Your task to perform on an android device: Show the shopping cart on ebay.com. Add "usb-a" to the cart on ebay.com, then select checkout. Image 0: 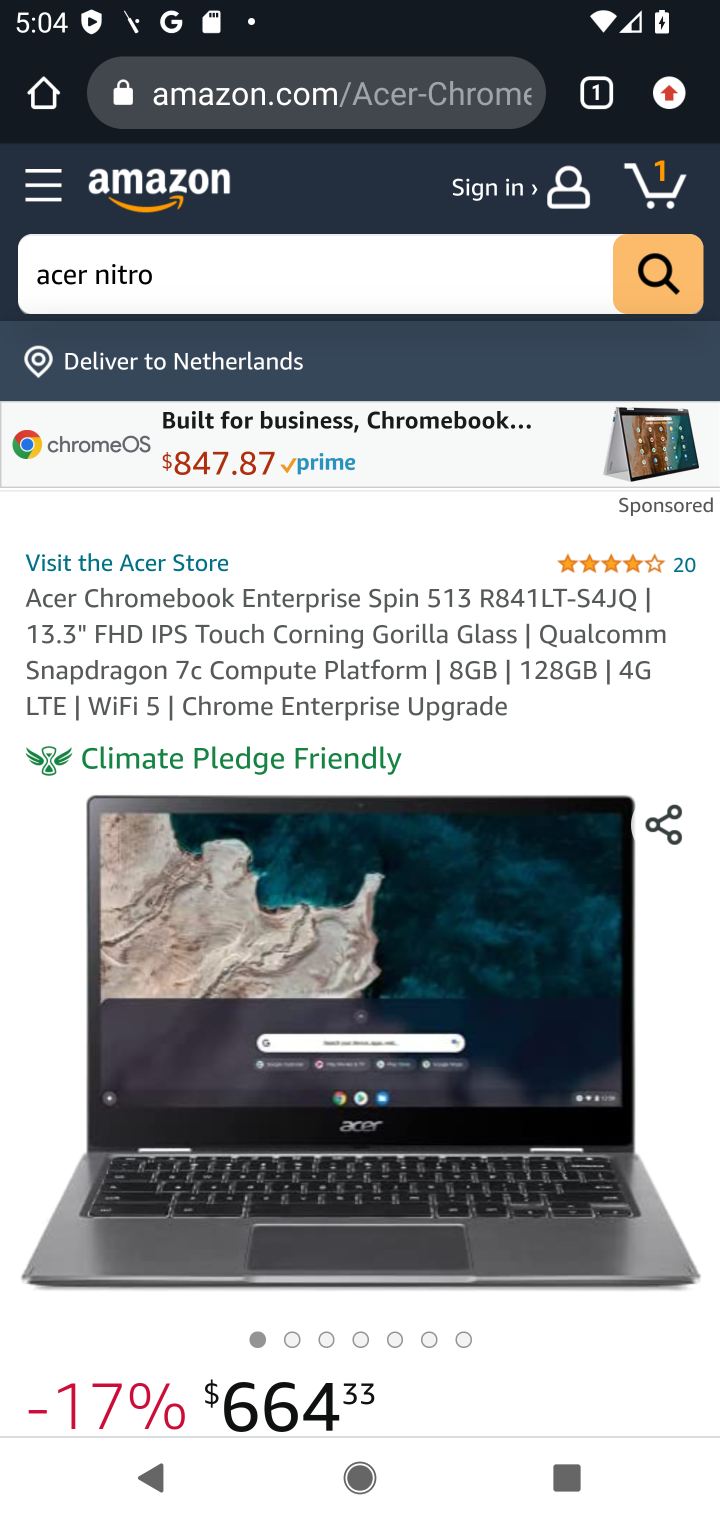
Step 0: click (267, 91)
Your task to perform on an android device: Show the shopping cart on ebay.com. Add "usb-a" to the cart on ebay.com, then select checkout. Image 1: 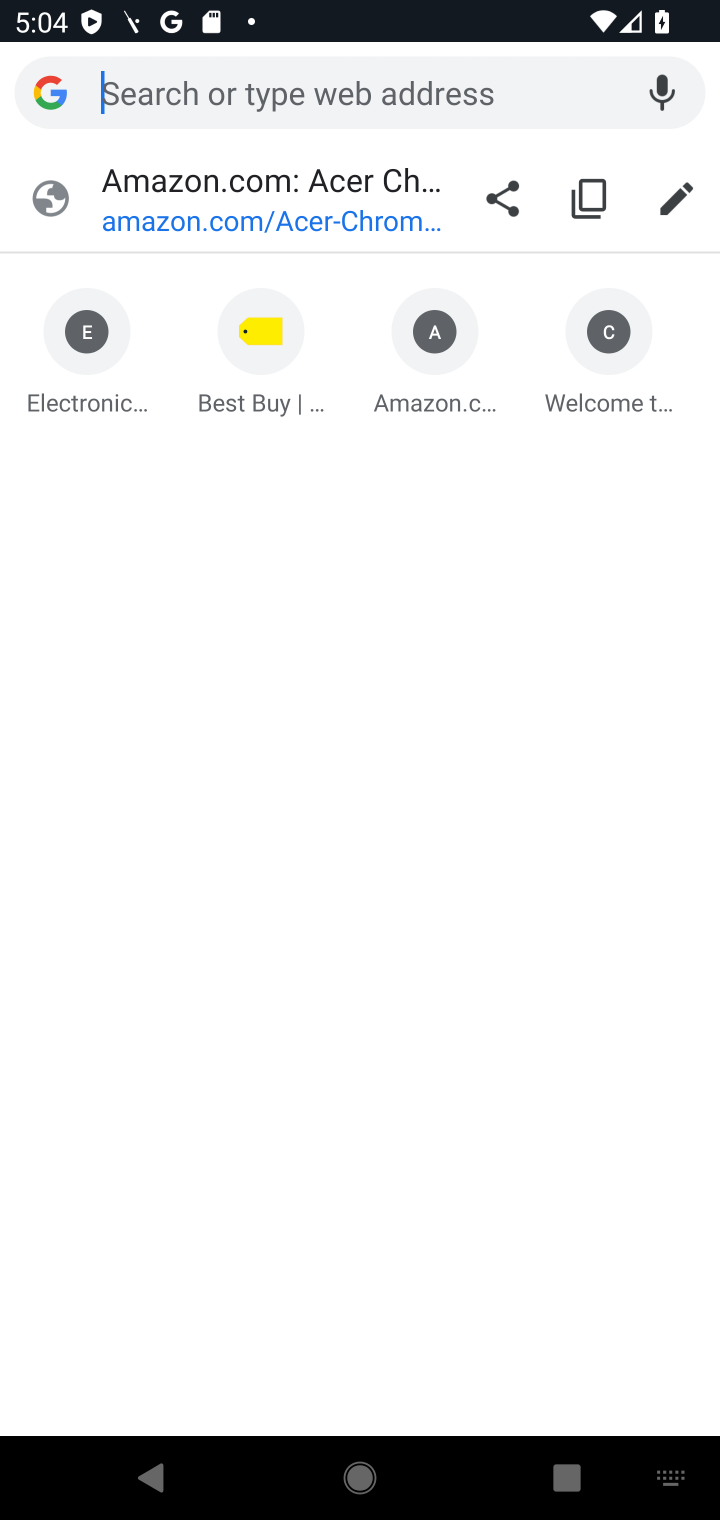
Step 1: type "ebay.com"
Your task to perform on an android device: Show the shopping cart on ebay.com. Add "usb-a" to the cart on ebay.com, then select checkout. Image 2: 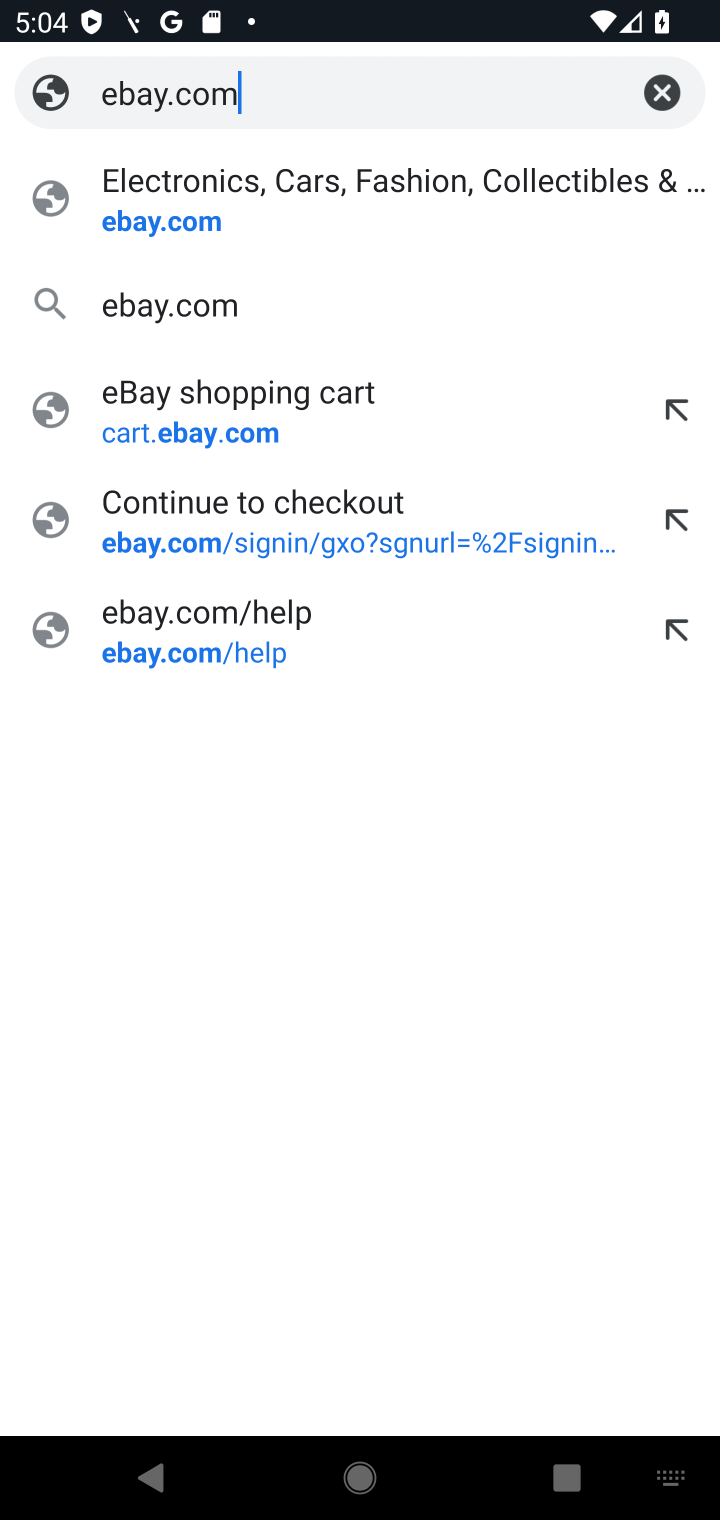
Step 2: click (157, 228)
Your task to perform on an android device: Show the shopping cart on ebay.com. Add "usb-a" to the cart on ebay.com, then select checkout. Image 3: 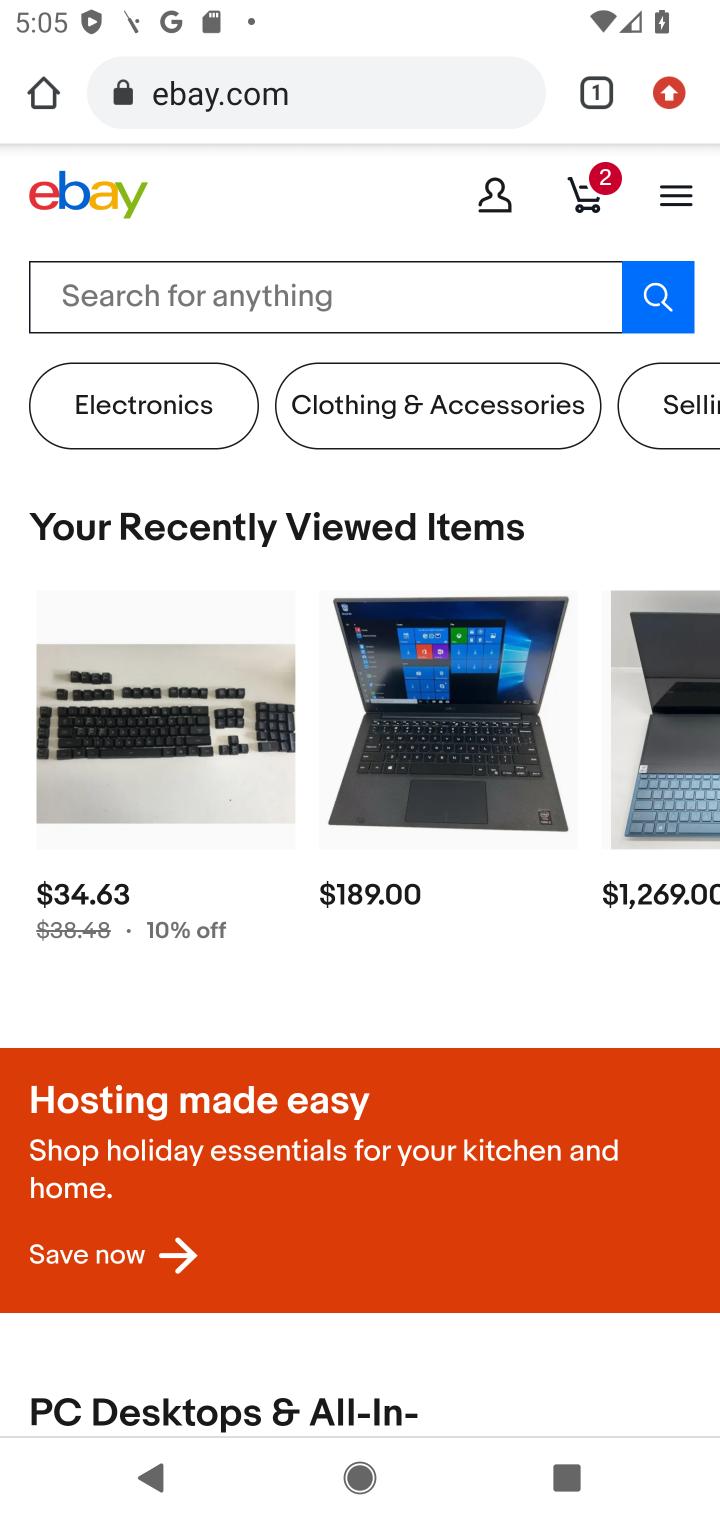
Step 3: click (588, 204)
Your task to perform on an android device: Show the shopping cart on ebay.com. Add "usb-a" to the cart on ebay.com, then select checkout. Image 4: 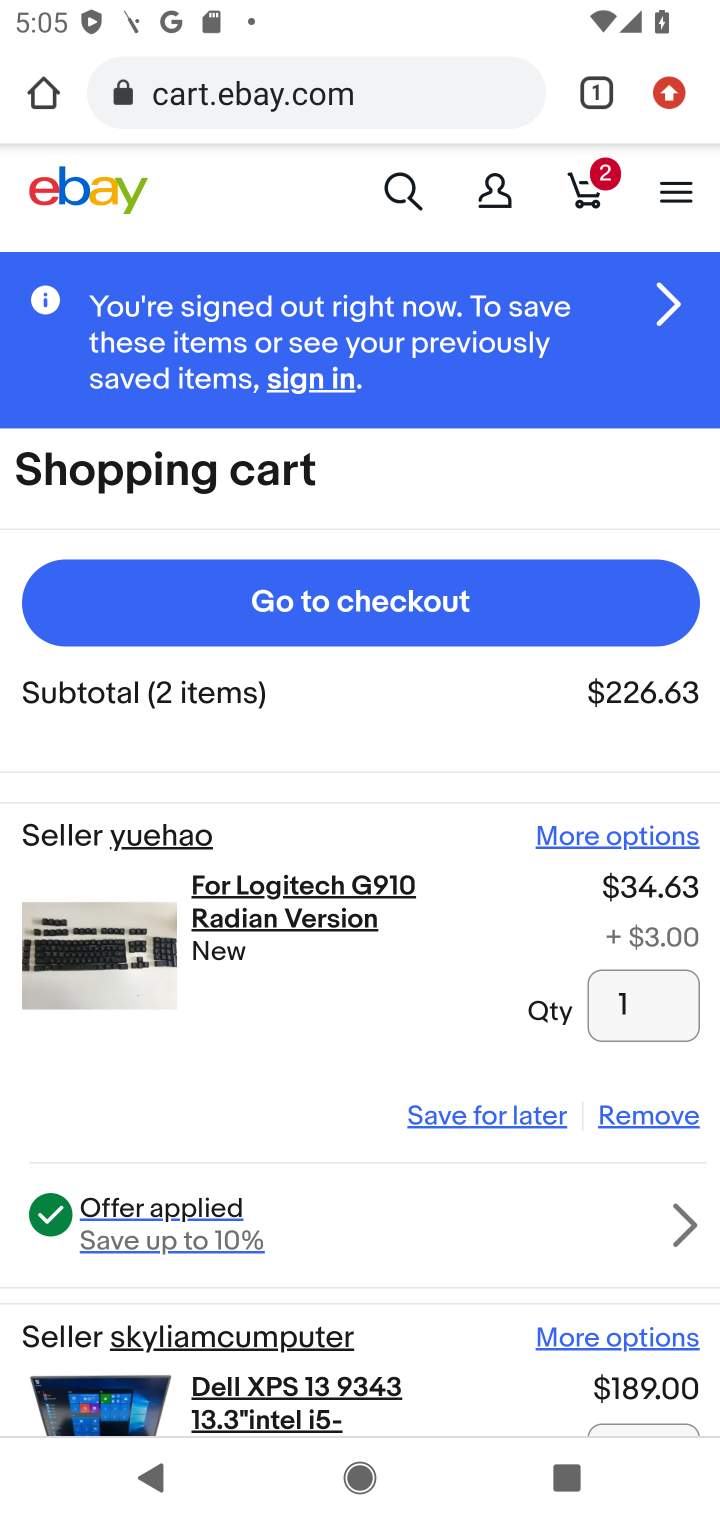
Step 4: click (411, 190)
Your task to perform on an android device: Show the shopping cart on ebay.com. Add "usb-a" to the cart on ebay.com, then select checkout. Image 5: 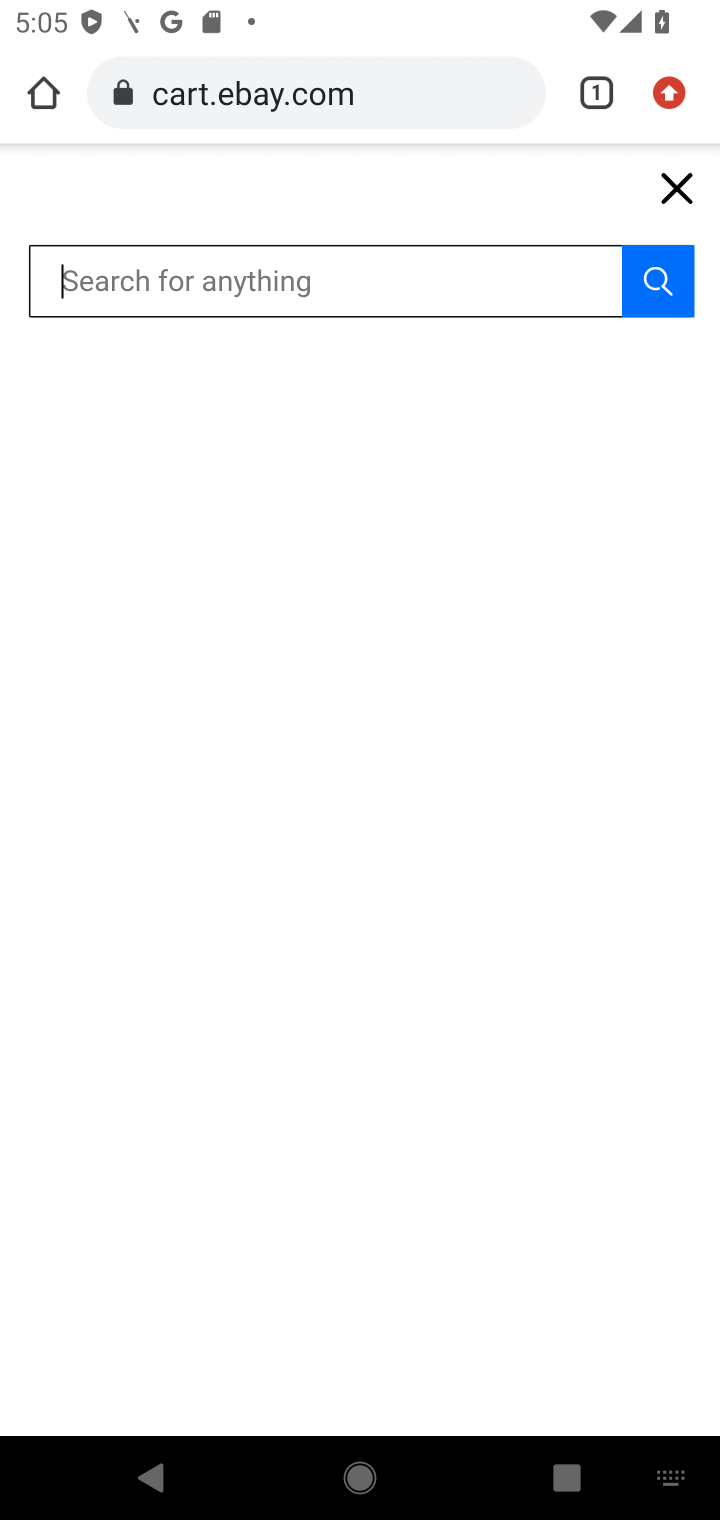
Step 5: type "usb-a"
Your task to perform on an android device: Show the shopping cart on ebay.com. Add "usb-a" to the cart on ebay.com, then select checkout. Image 6: 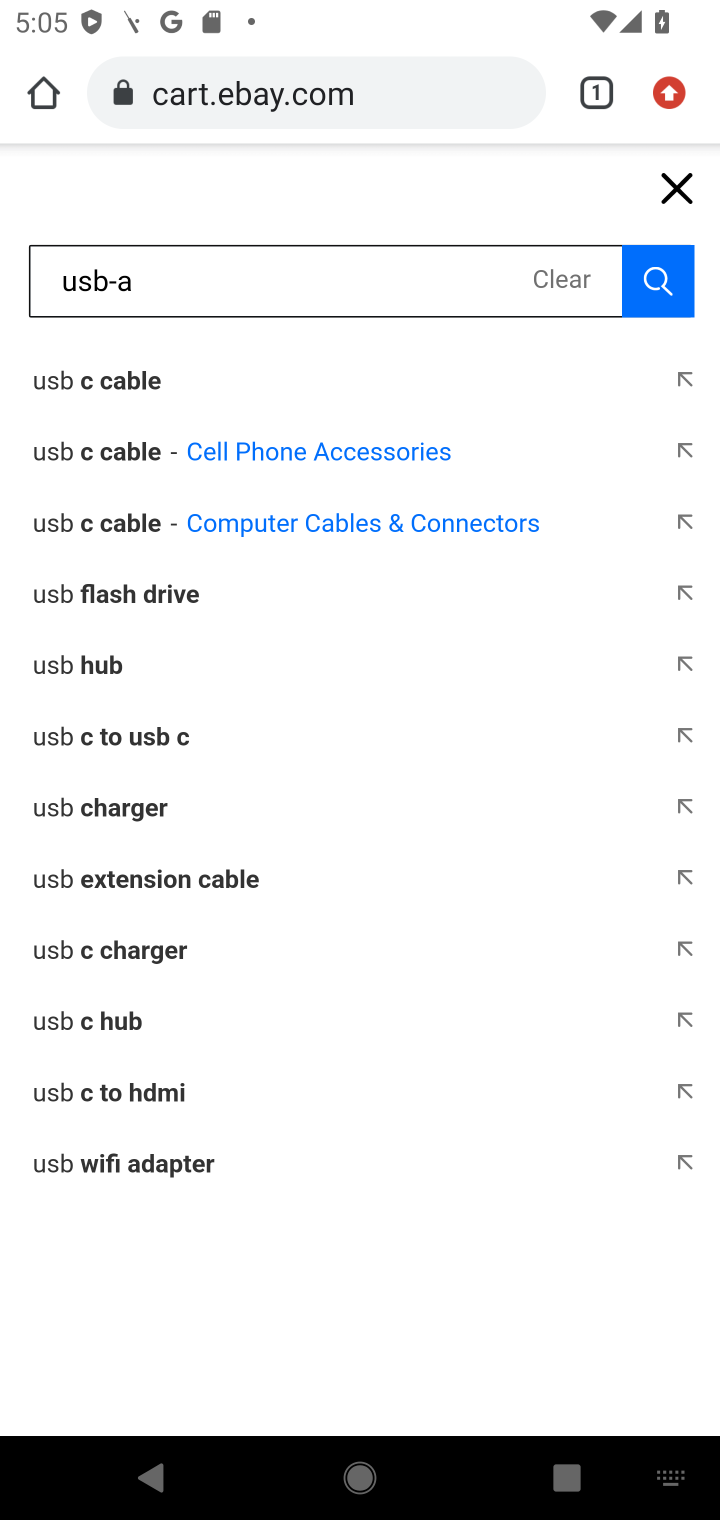
Step 6: click (659, 279)
Your task to perform on an android device: Show the shopping cart on ebay.com. Add "usb-a" to the cart on ebay.com, then select checkout. Image 7: 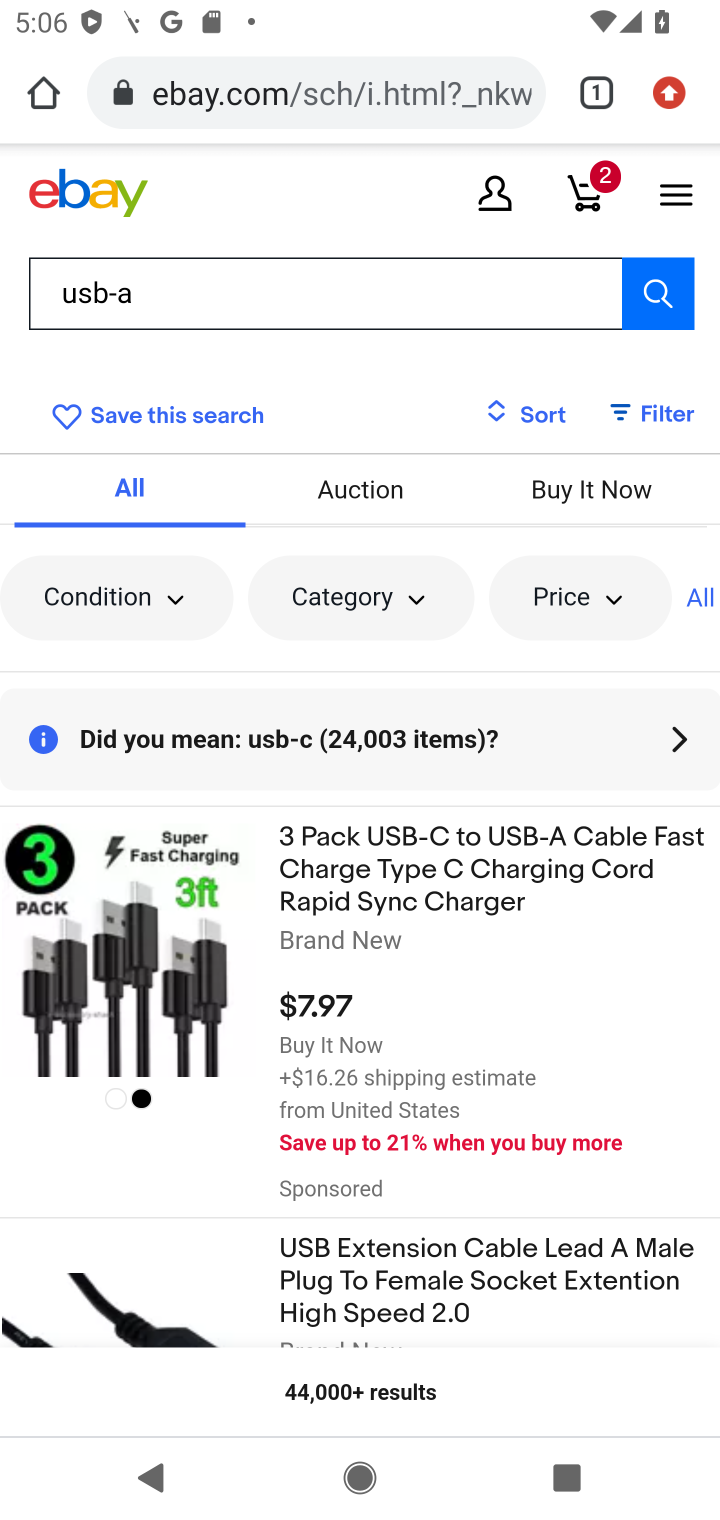
Step 7: click (189, 1018)
Your task to perform on an android device: Show the shopping cart on ebay.com. Add "usb-a" to the cart on ebay.com, then select checkout. Image 8: 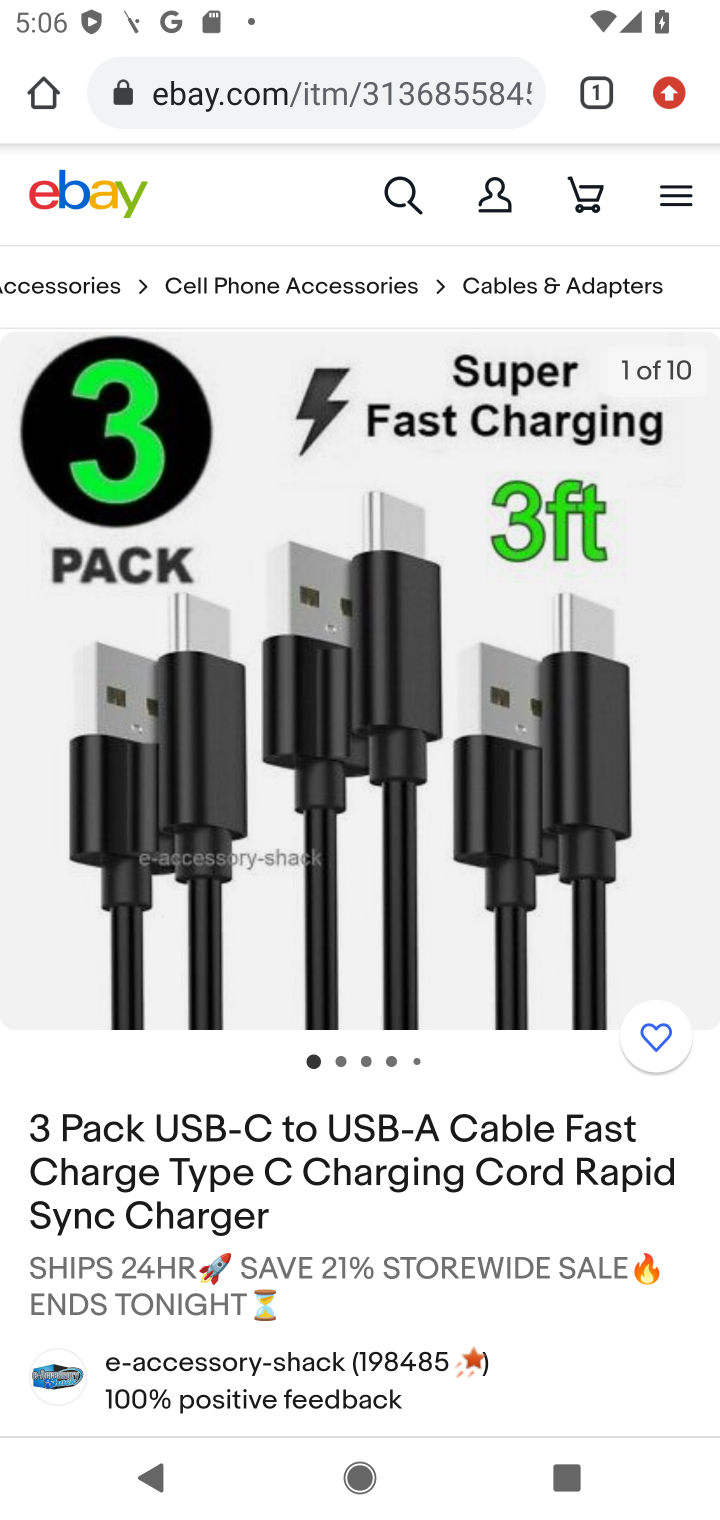
Step 8: drag from (302, 1070) to (332, 413)
Your task to perform on an android device: Show the shopping cart on ebay.com. Add "usb-a" to the cart on ebay.com, then select checkout. Image 9: 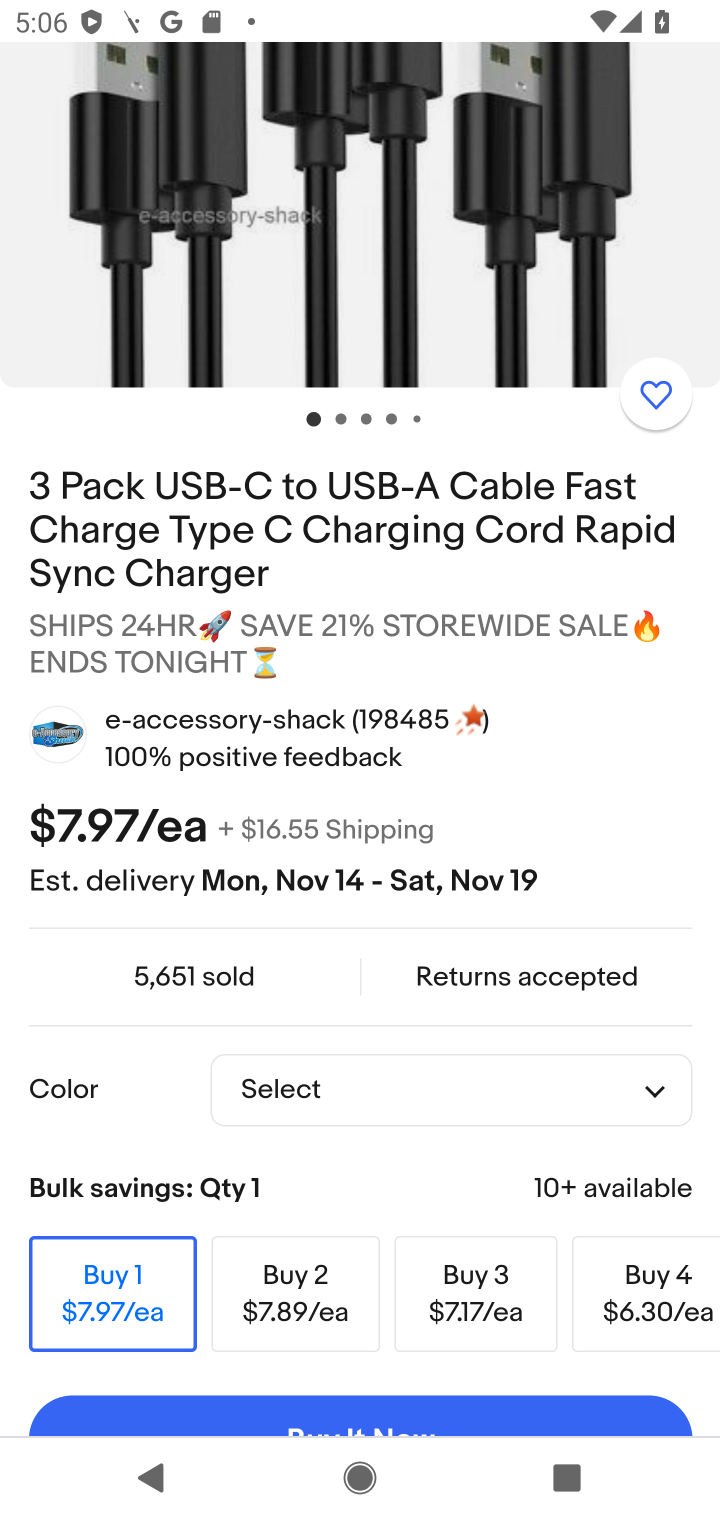
Step 9: drag from (340, 1304) to (342, 797)
Your task to perform on an android device: Show the shopping cart on ebay.com. Add "usb-a" to the cart on ebay.com, then select checkout. Image 10: 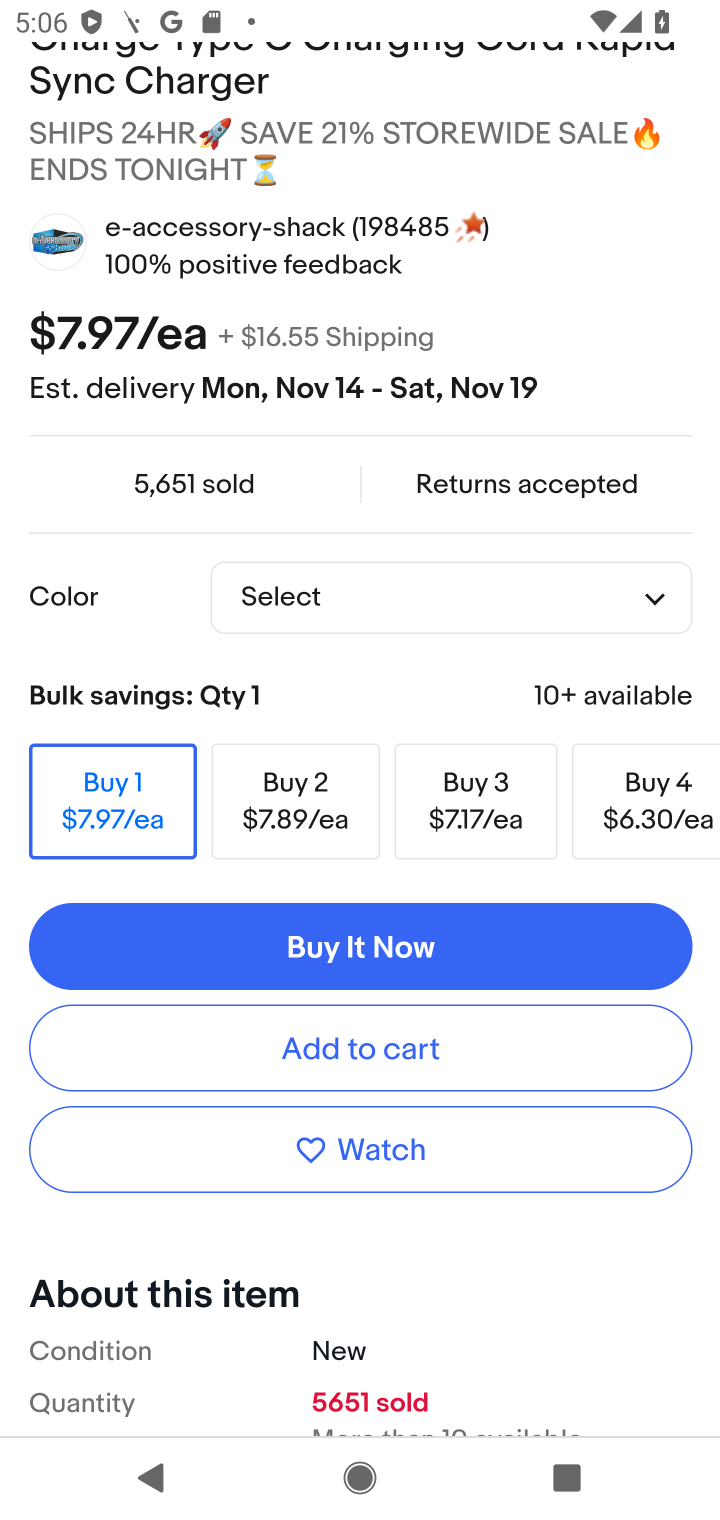
Step 10: click (330, 1072)
Your task to perform on an android device: Show the shopping cart on ebay.com. Add "usb-a" to the cart on ebay.com, then select checkout. Image 11: 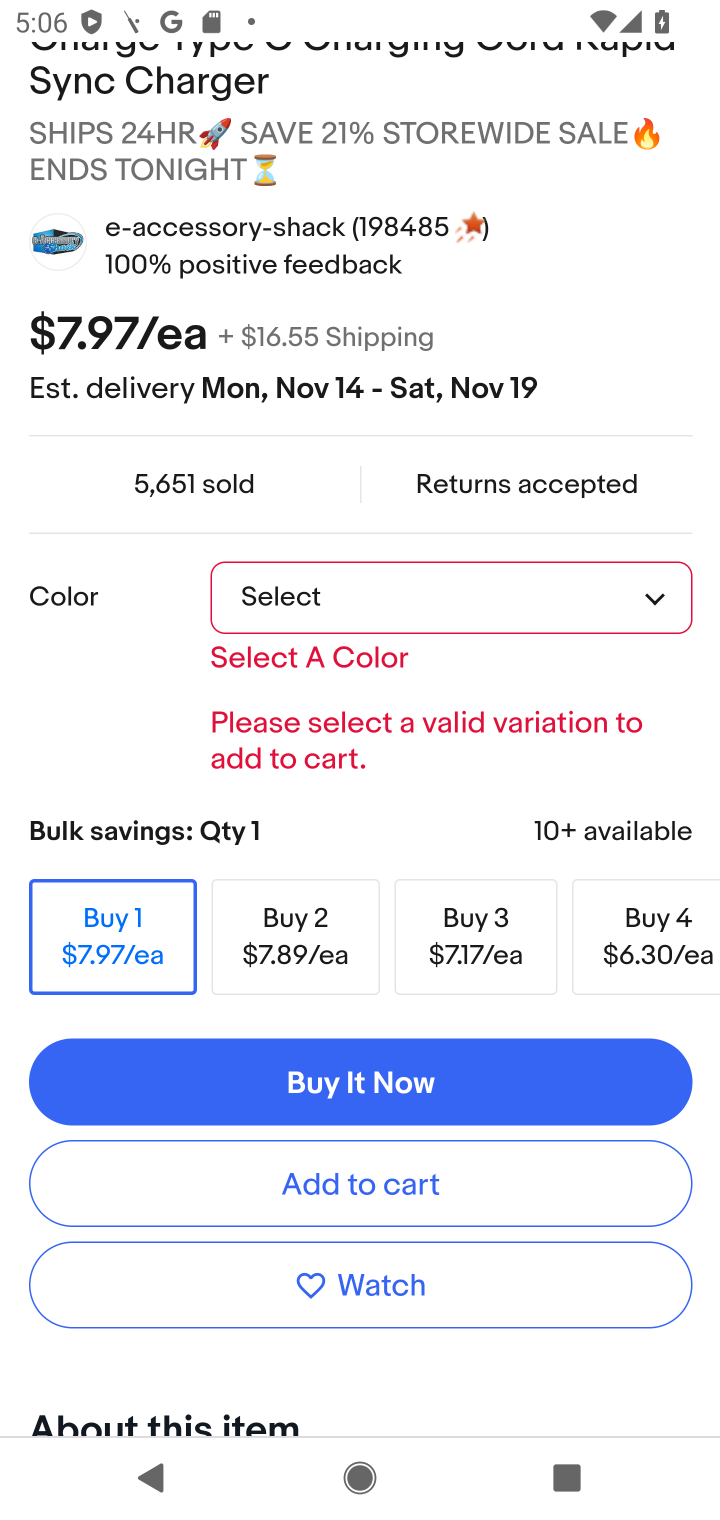
Step 11: click (657, 610)
Your task to perform on an android device: Show the shopping cart on ebay.com. Add "usb-a" to the cart on ebay.com, then select checkout. Image 12: 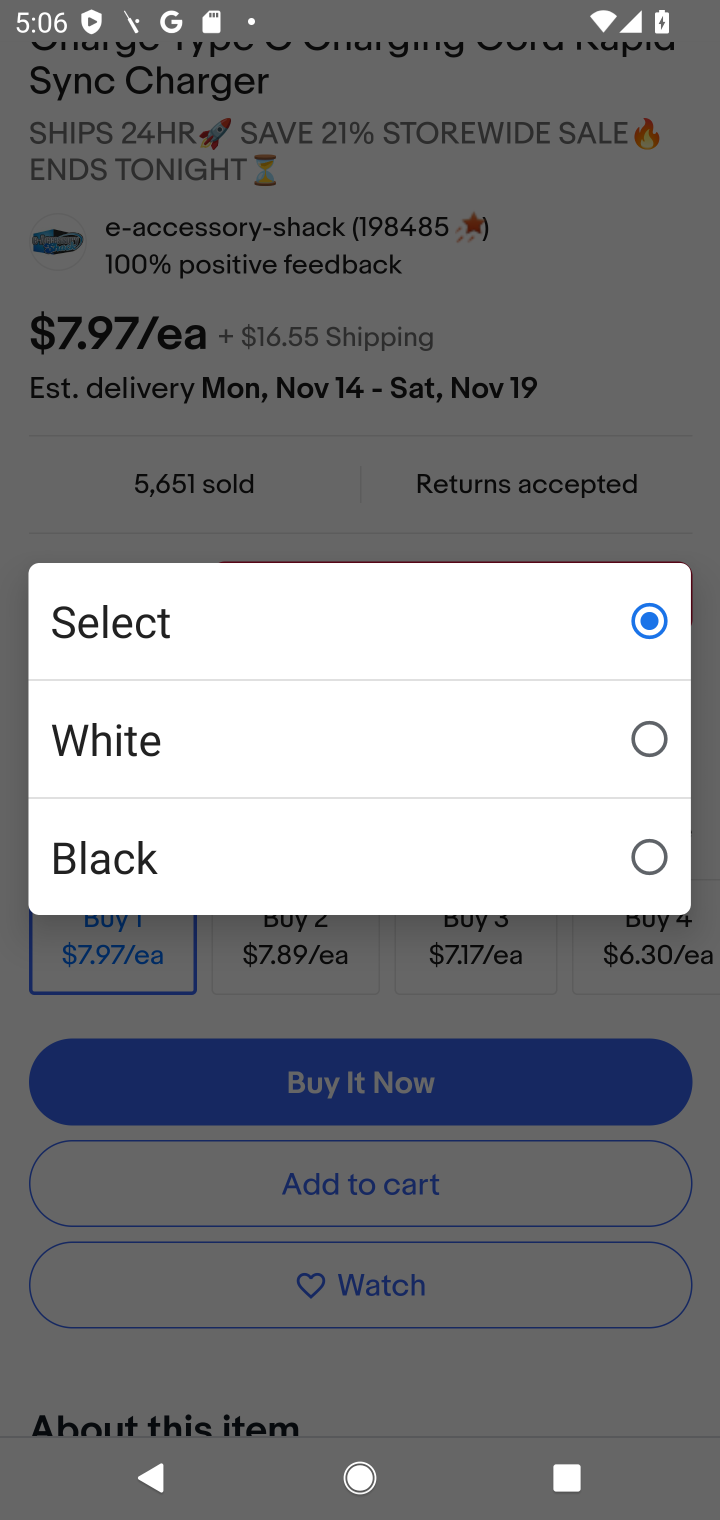
Step 12: click (169, 744)
Your task to perform on an android device: Show the shopping cart on ebay.com. Add "usb-a" to the cart on ebay.com, then select checkout. Image 13: 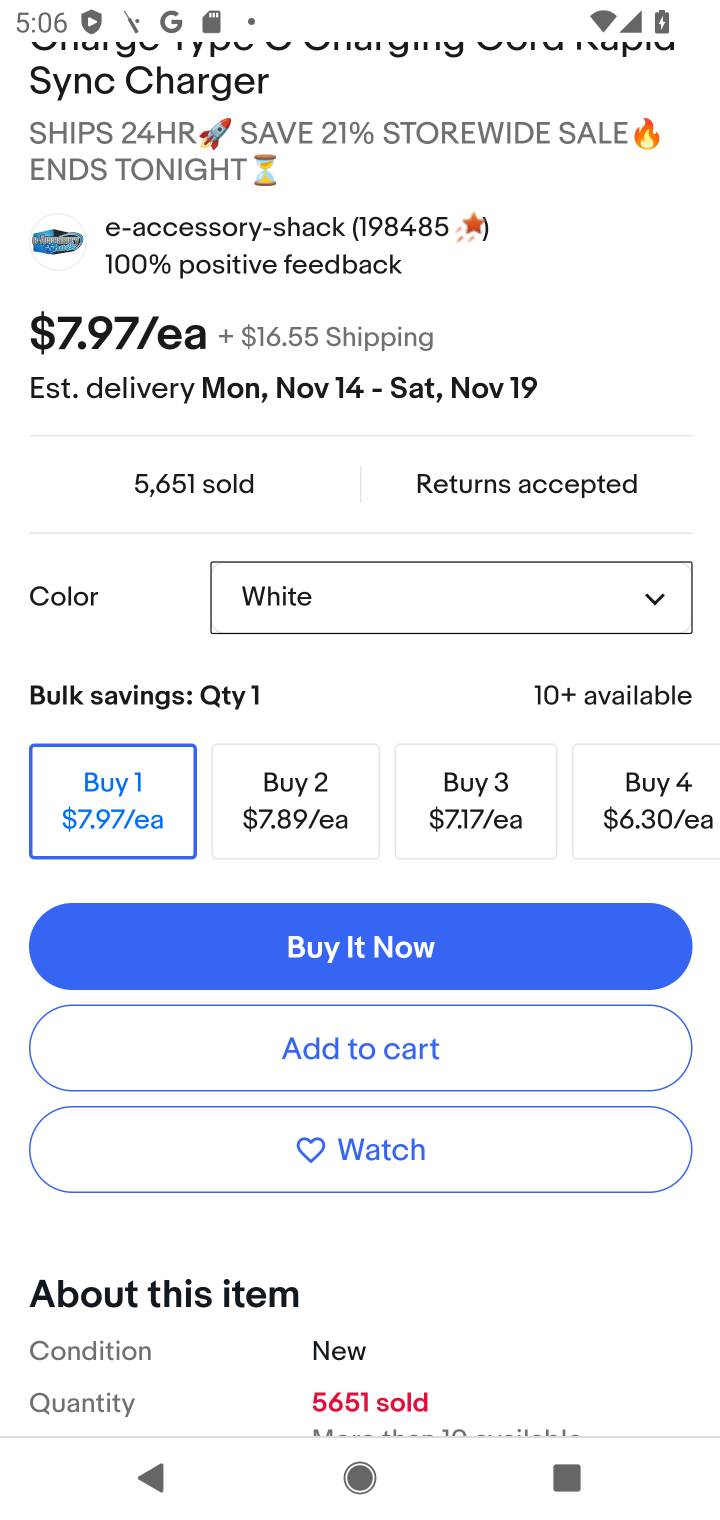
Step 13: click (384, 1034)
Your task to perform on an android device: Show the shopping cart on ebay.com. Add "usb-a" to the cart on ebay.com, then select checkout. Image 14: 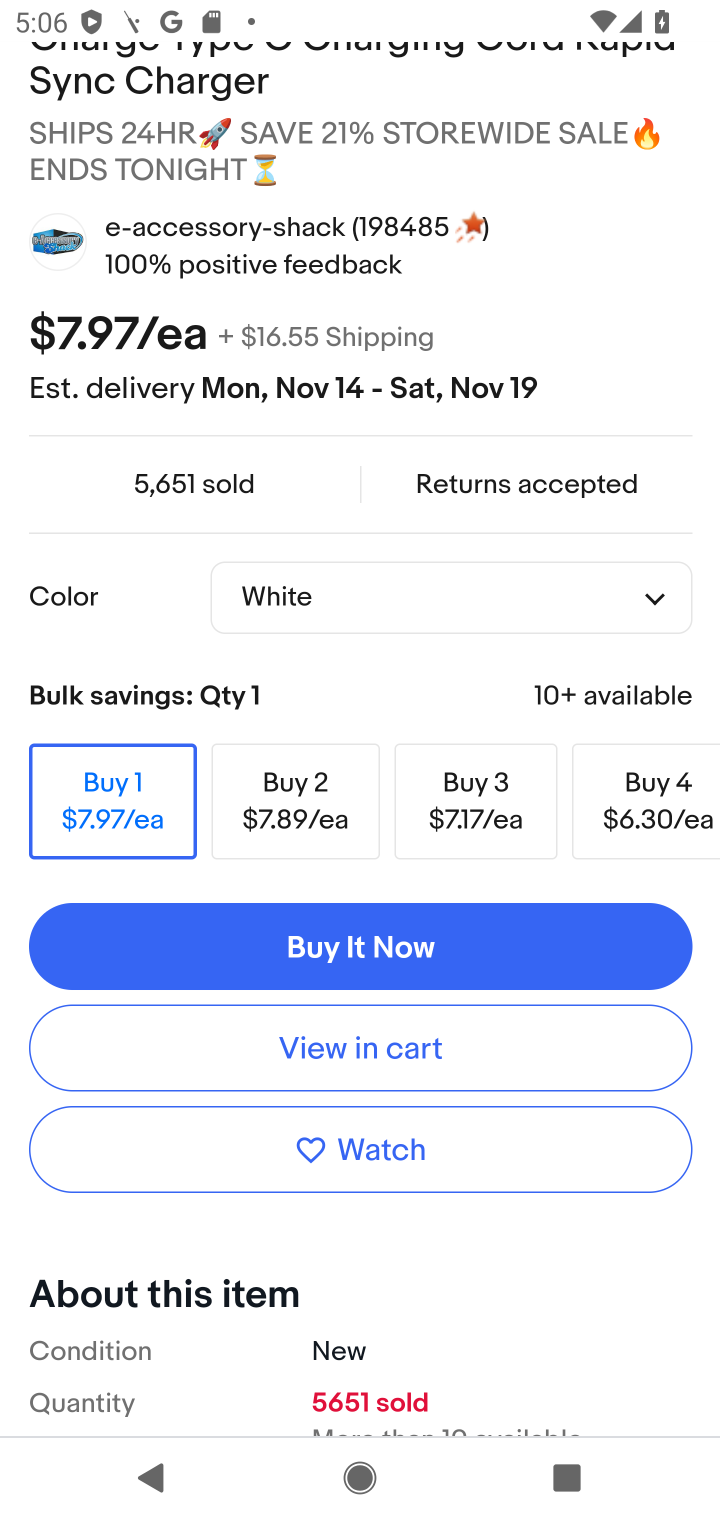
Step 14: click (352, 1055)
Your task to perform on an android device: Show the shopping cart on ebay.com. Add "usb-a" to the cart on ebay.com, then select checkout. Image 15: 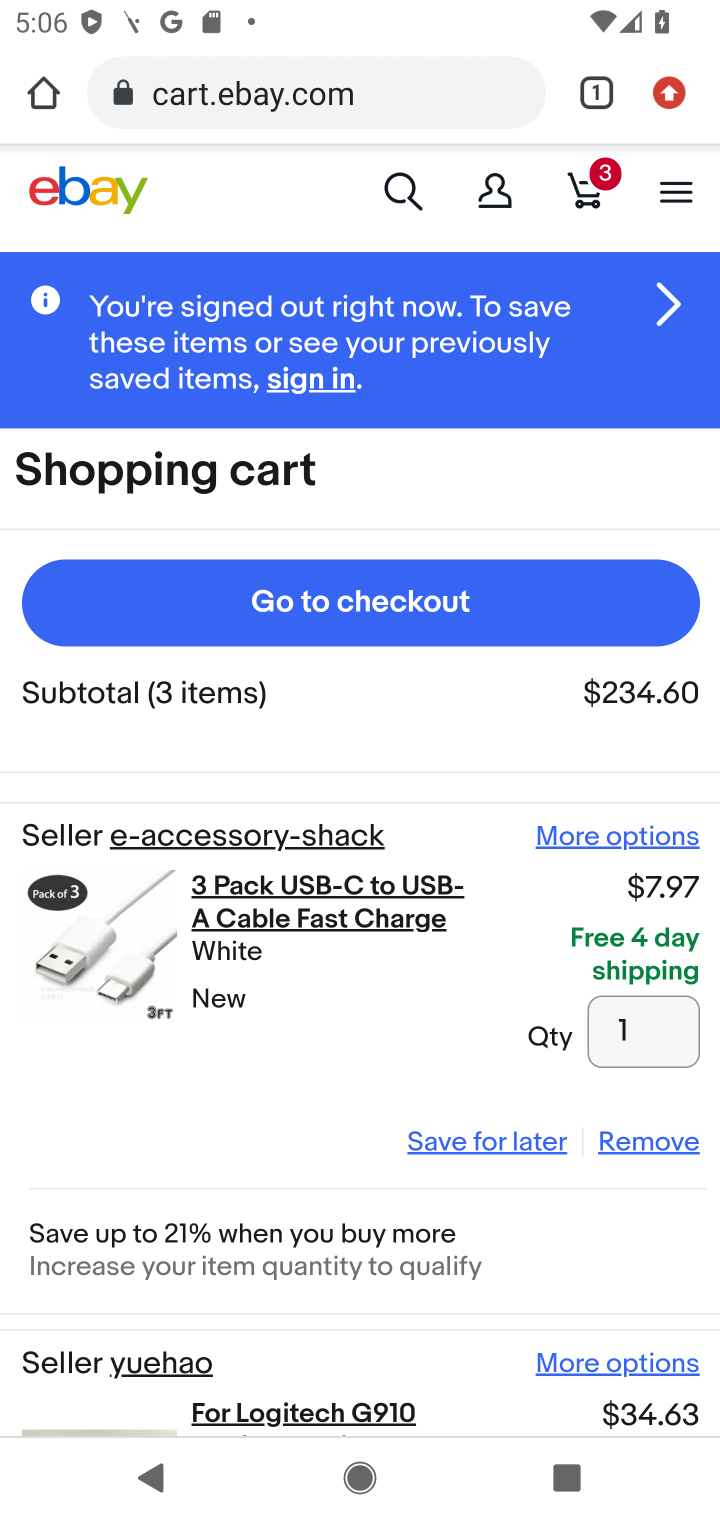
Step 15: click (313, 613)
Your task to perform on an android device: Show the shopping cart on ebay.com. Add "usb-a" to the cart on ebay.com, then select checkout. Image 16: 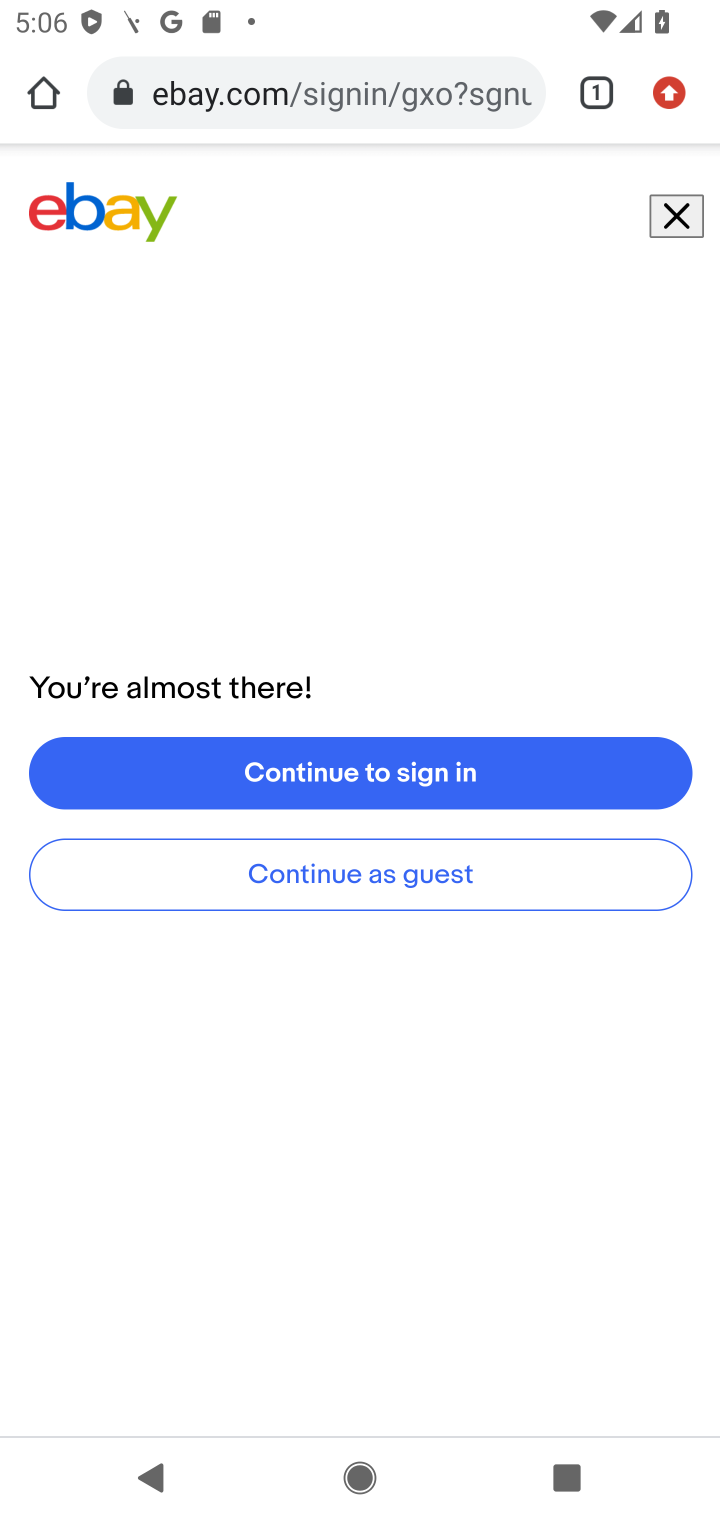
Step 16: task complete